Your task to perform on an android device: check data usage Image 0: 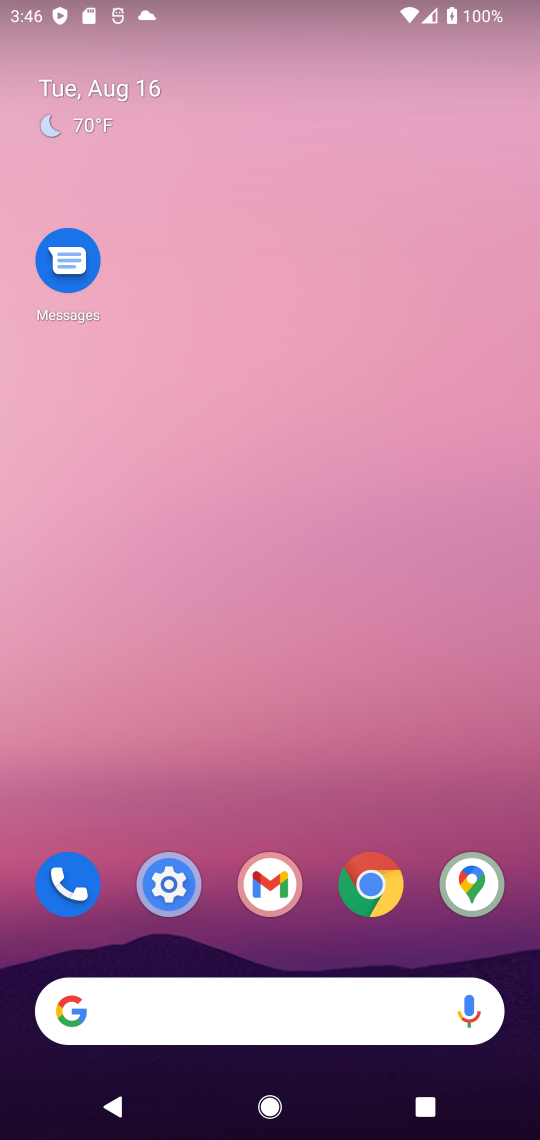
Step 0: click (143, 882)
Your task to perform on an android device: check data usage Image 1: 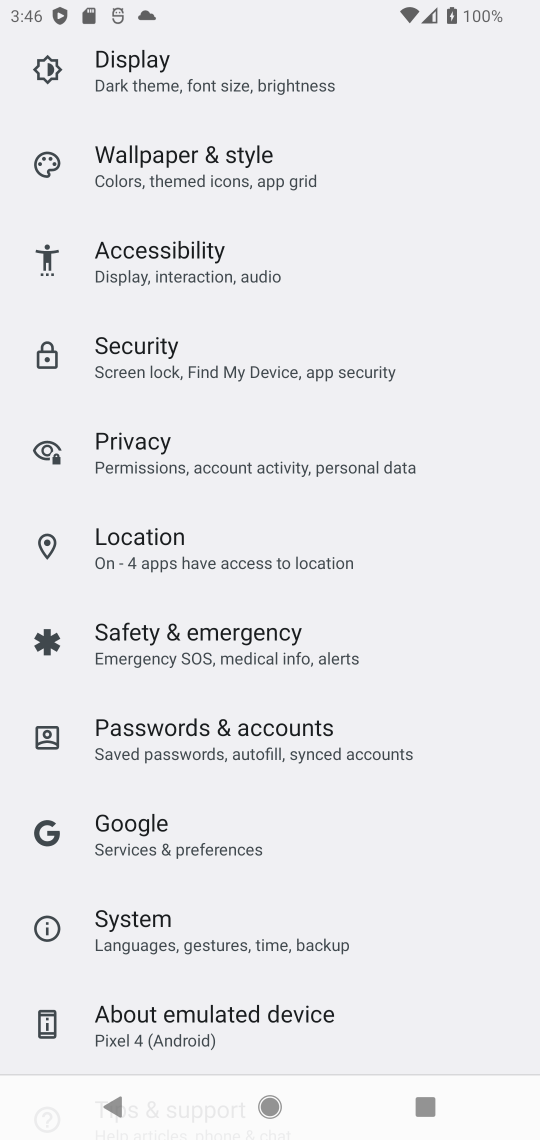
Step 1: drag from (438, 91) to (492, 1121)
Your task to perform on an android device: check data usage Image 2: 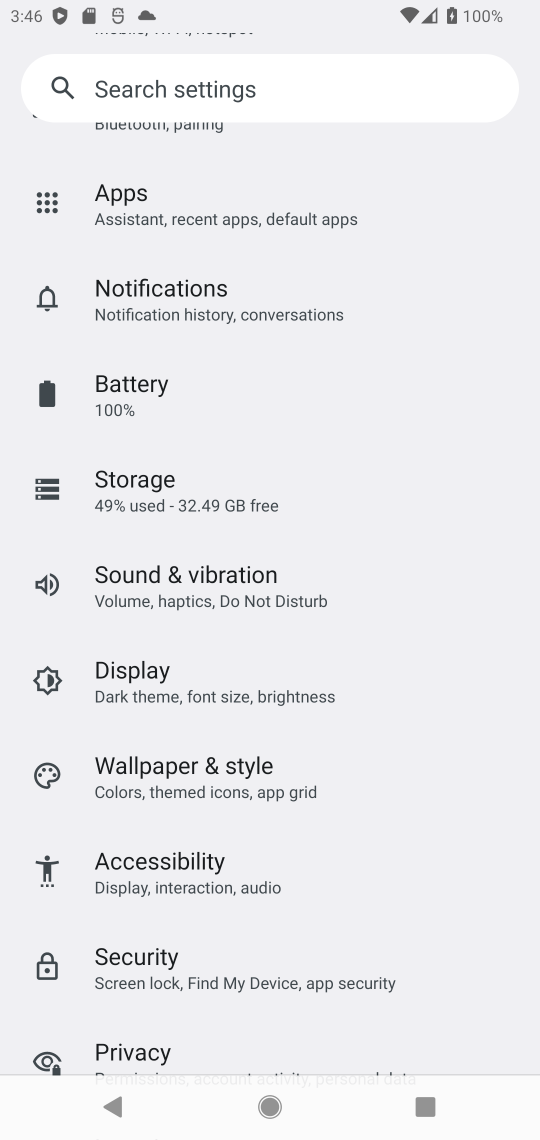
Step 2: drag from (445, 152) to (381, 731)
Your task to perform on an android device: check data usage Image 3: 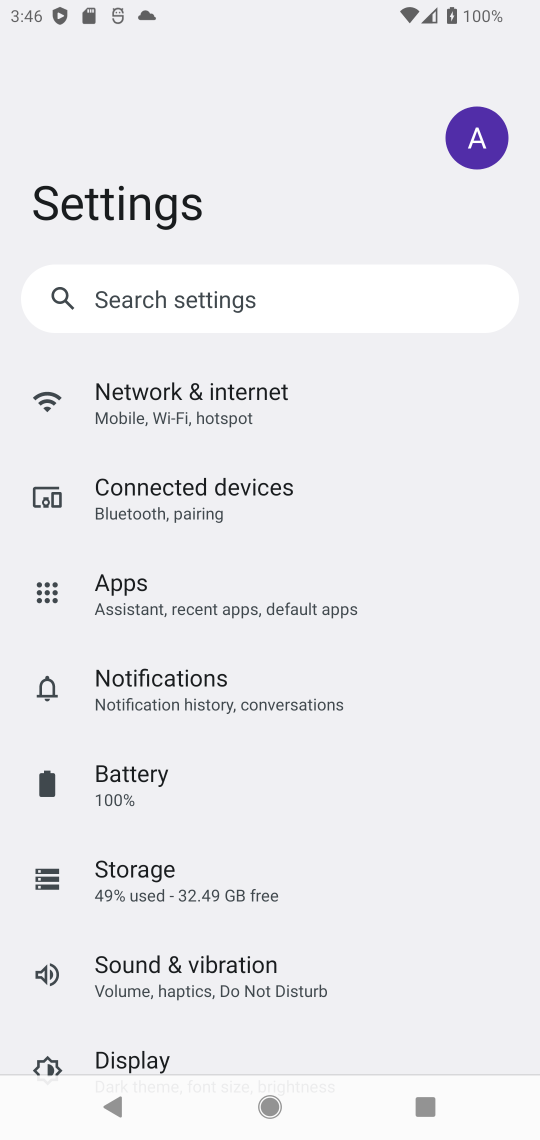
Step 3: click (208, 401)
Your task to perform on an android device: check data usage Image 4: 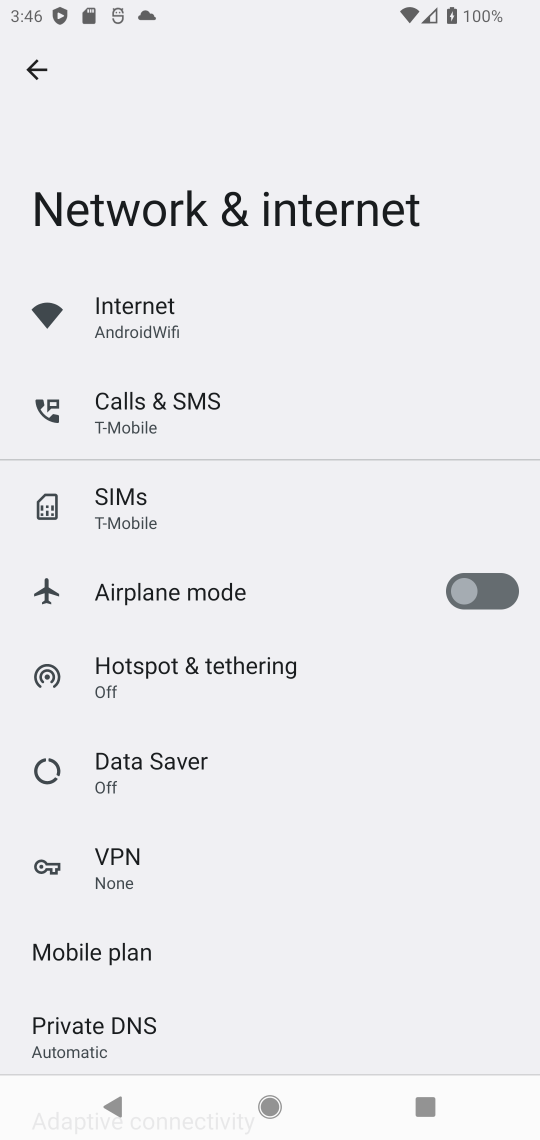
Step 4: drag from (417, 996) to (355, 311)
Your task to perform on an android device: check data usage Image 5: 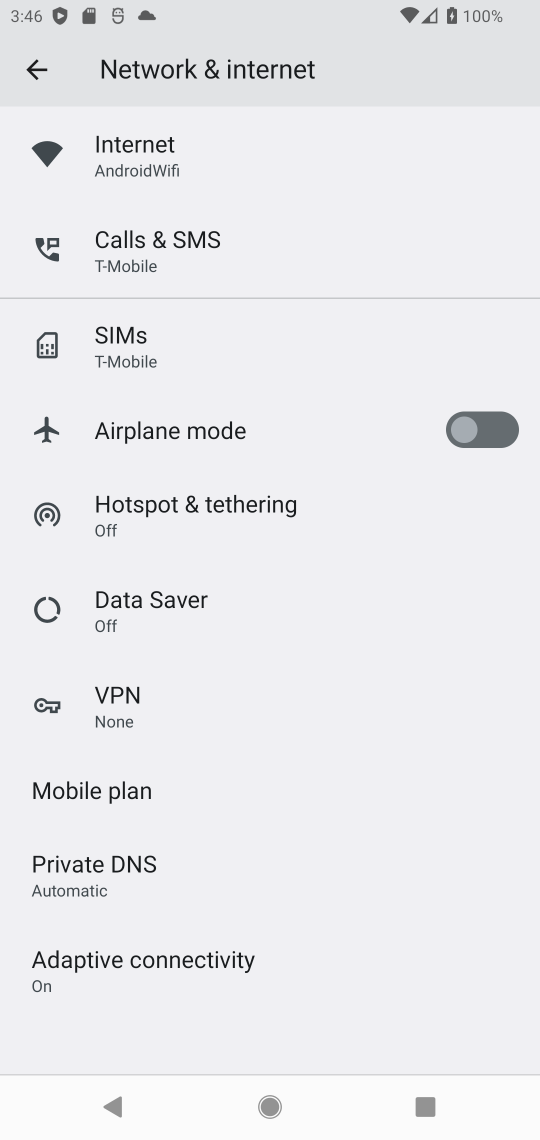
Step 5: click (81, 802)
Your task to perform on an android device: check data usage Image 6: 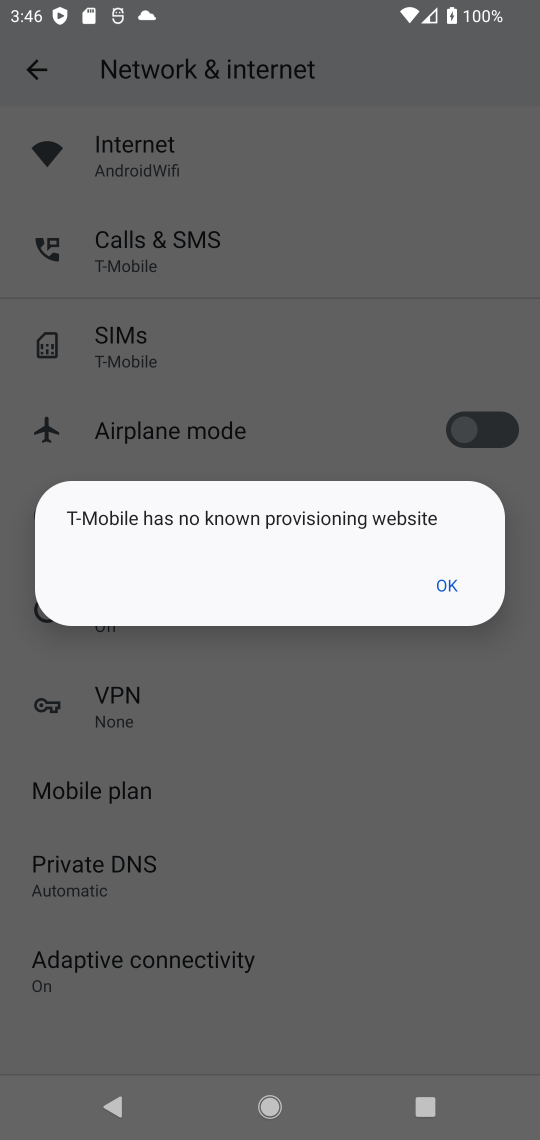
Step 6: click (459, 571)
Your task to perform on an android device: check data usage Image 7: 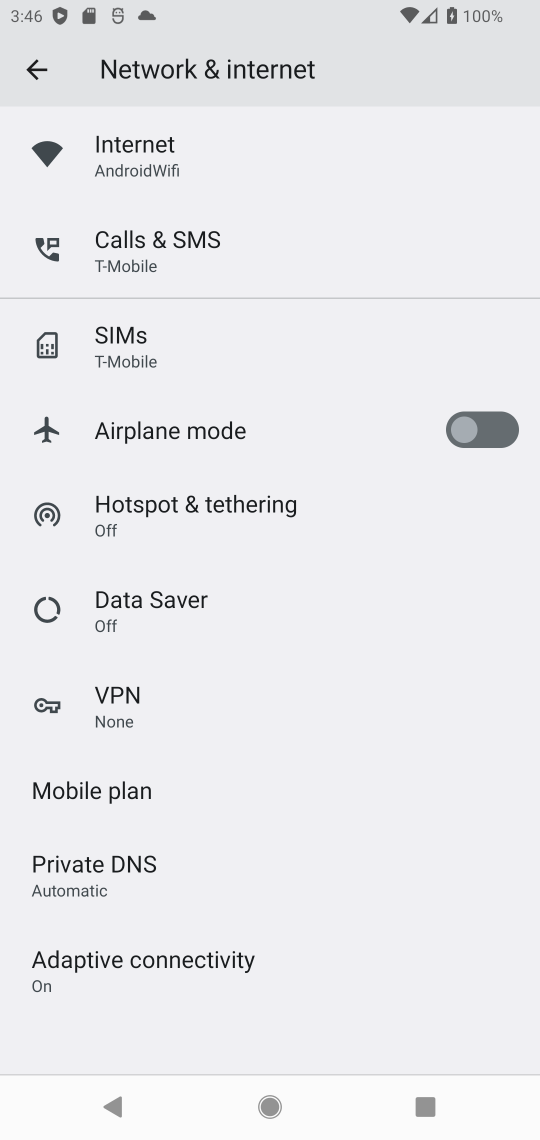
Step 7: drag from (370, 888) to (360, 505)
Your task to perform on an android device: check data usage Image 8: 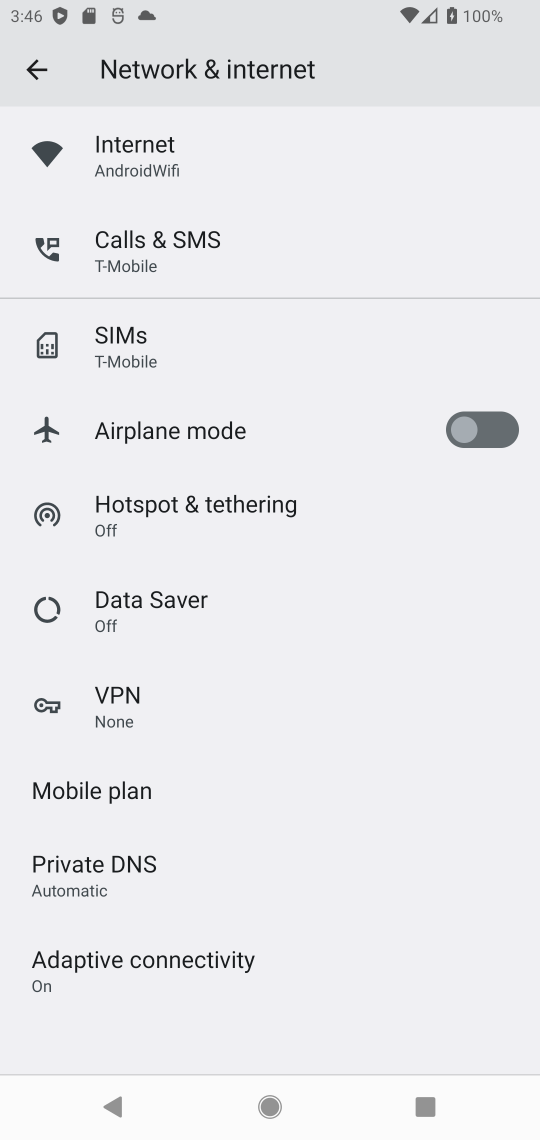
Step 8: drag from (363, 211) to (336, 835)
Your task to perform on an android device: check data usage Image 9: 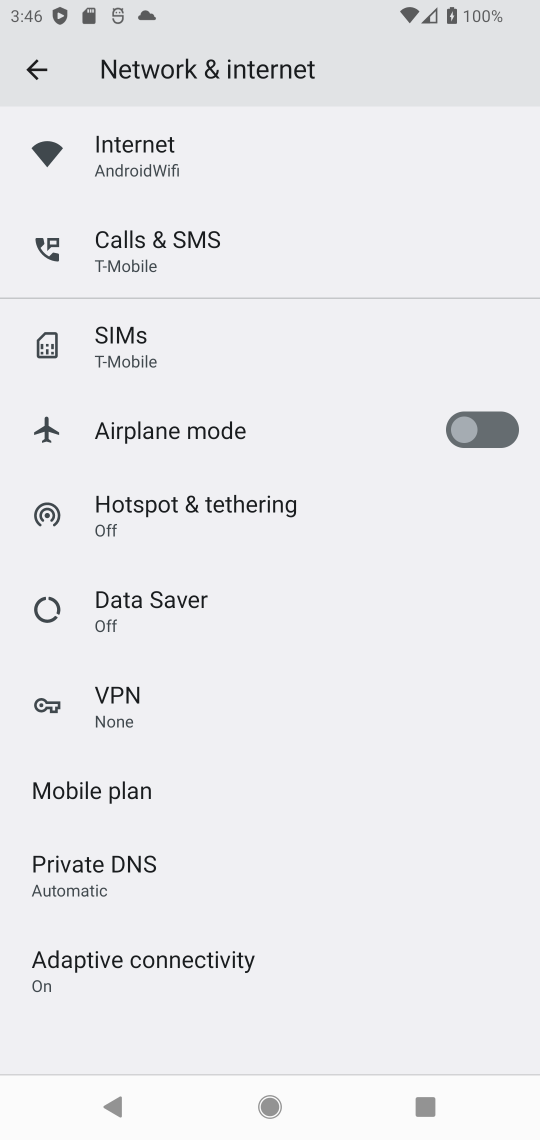
Step 9: drag from (316, 186) to (308, 857)
Your task to perform on an android device: check data usage Image 10: 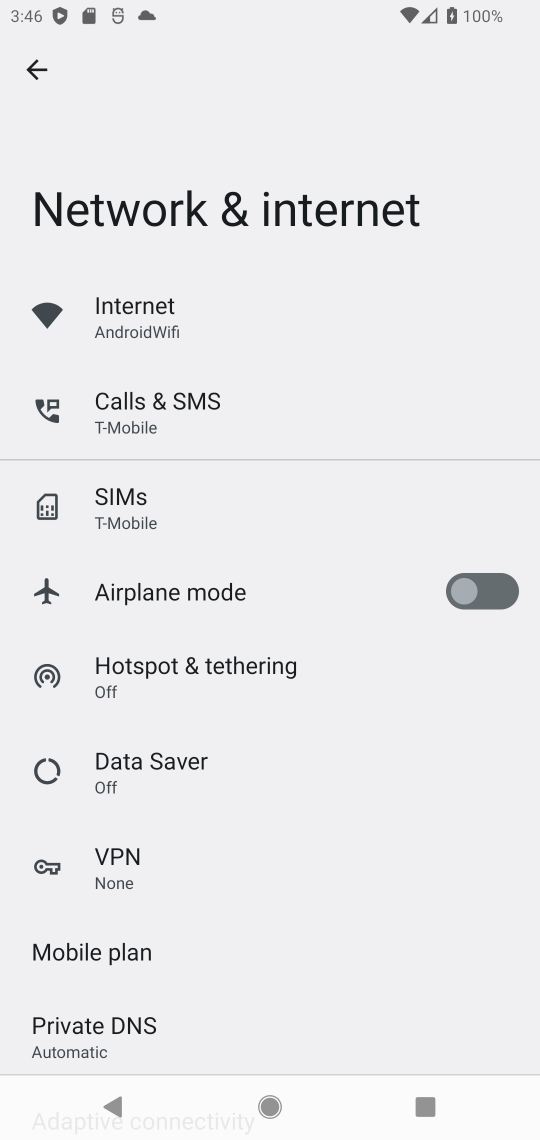
Step 10: click (135, 298)
Your task to perform on an android device: check data usage Image 11: 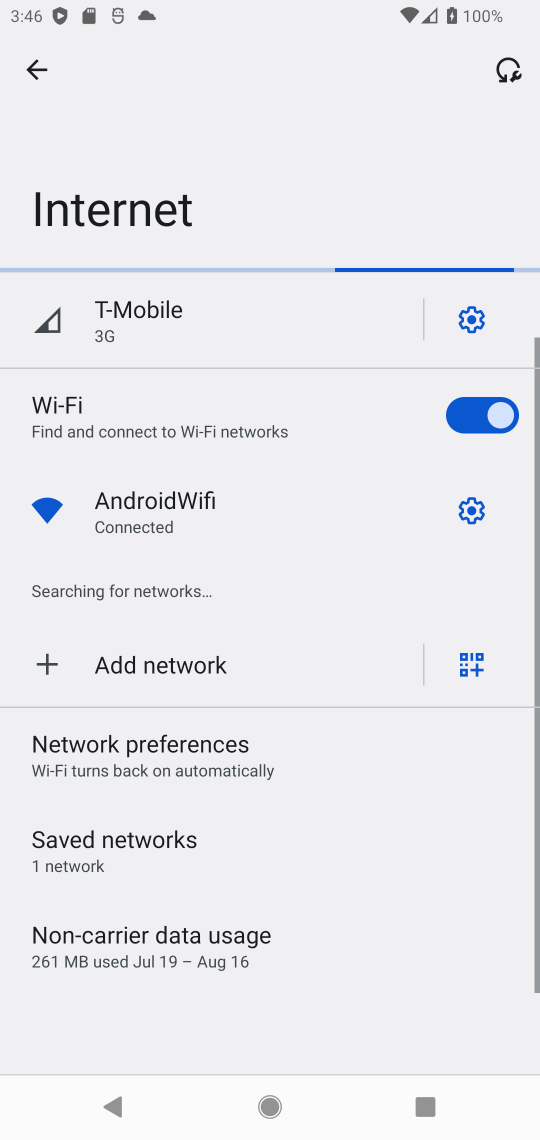
Step 11: click (124, 930)
Your task to perform on an android device: check data usage Image 12: 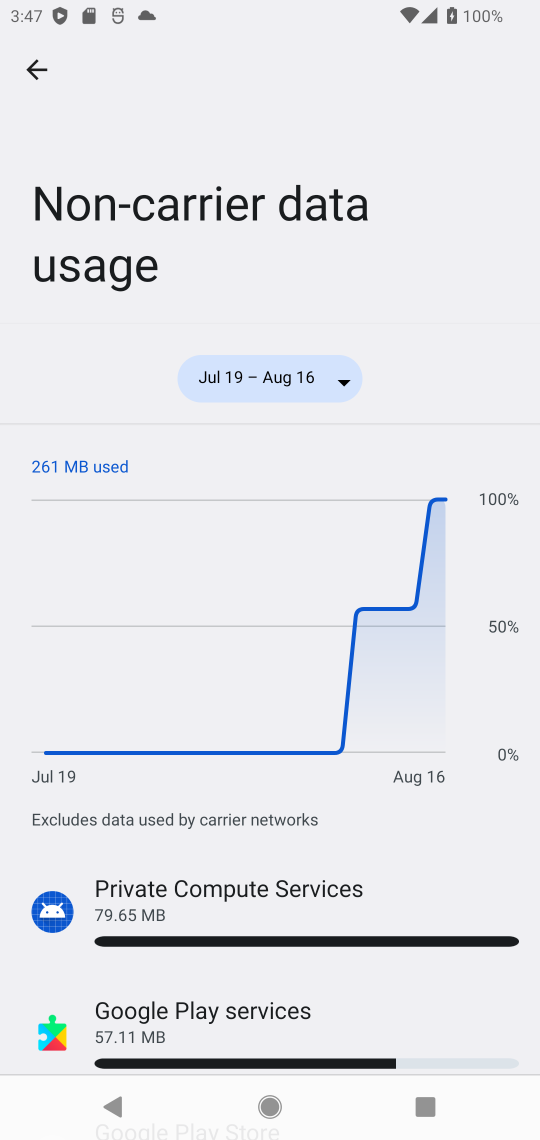
Step 12: task complete